Your task to perform on an android device: manage bookmarks in the chrome app Image 0: 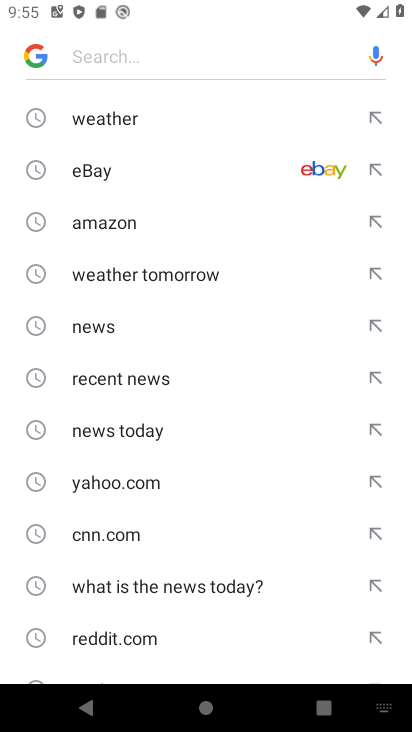
Step 0: press home button
Your task to perform on an android device: manage bookmarks in the chrome app Image 1: 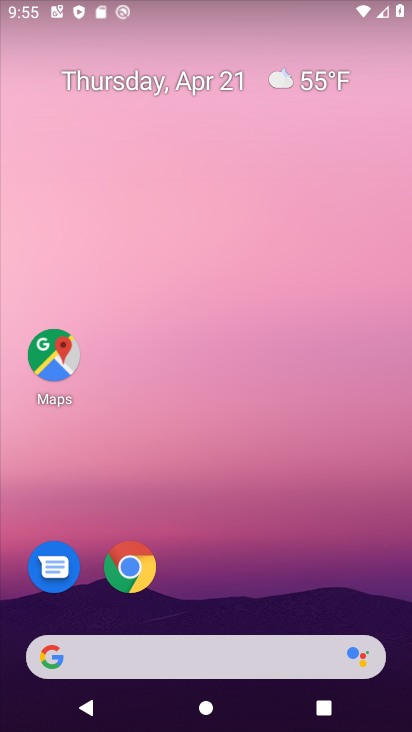
Step 1: click (133, 567)
Your task to perform on an android device: manage bookmarks in the chrome app Image 2: 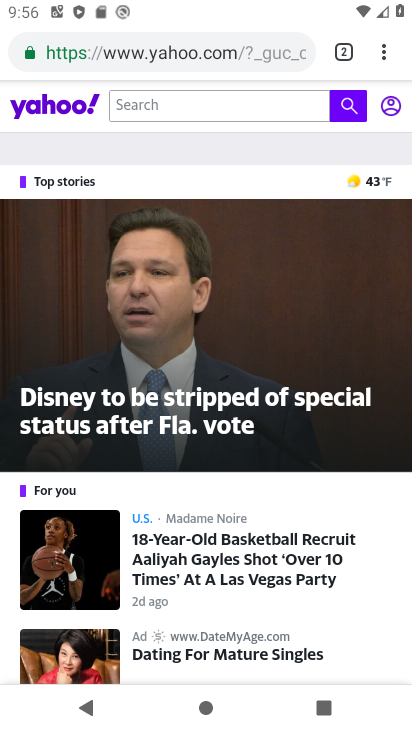
Step 2: click (383, 61)
Your task to perform on an android device: manage bookmarks in the chrome app Image 3: 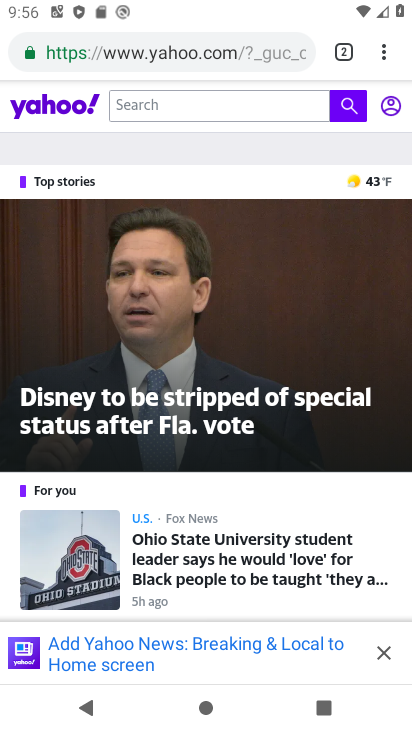
Step 3: click (383, 61)
Your task to perform on an android device: manage bookmarks in the chrome app Image 4: 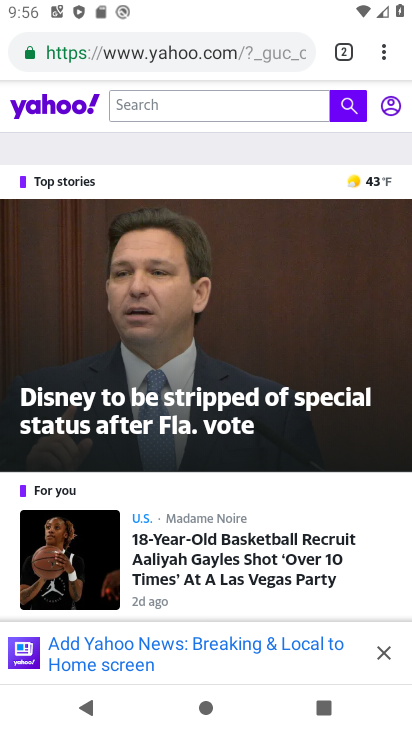
Step 4: click (381, 51)
Your task to perform on an android device: manage bookmarks in the chrome app Image 5: 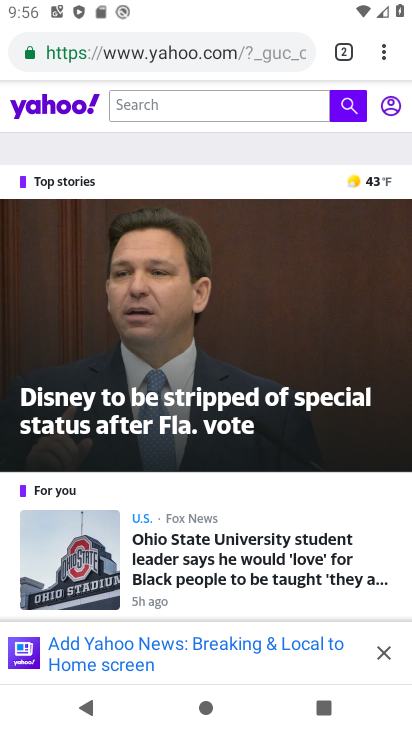
Step 5: click (381, 51)
Your task to perform on an android device: manage bookmarks in the chrome app Image 6: 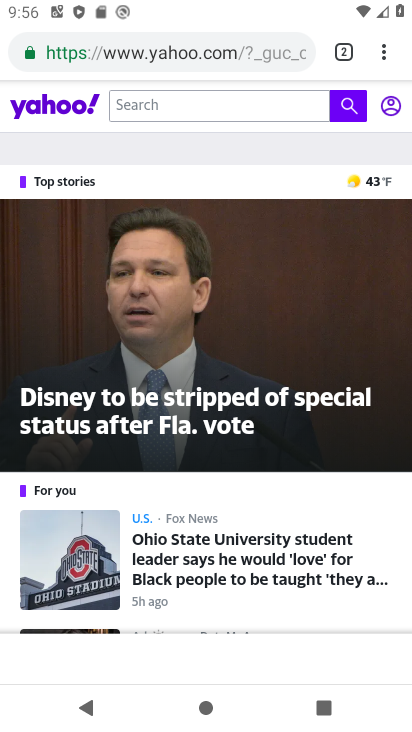
Step 6: click (381, 51)
Your task to perform on an android device: manage bookmarks in the chrome app Image 7: 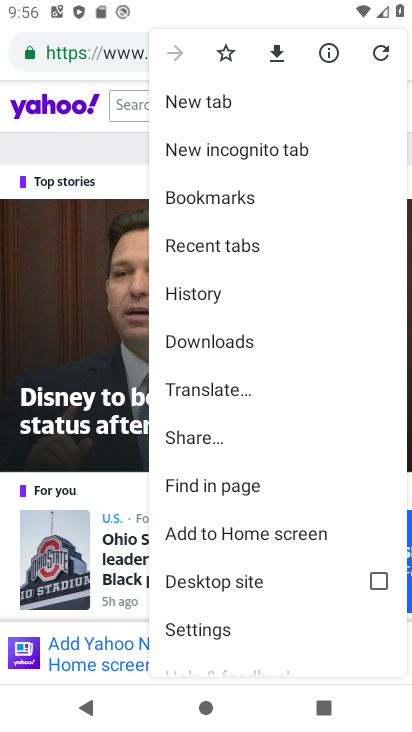
Step 7: click (204, 203)
Your task to perform on an android device: manage bookmarks in the chrome app Image 8: 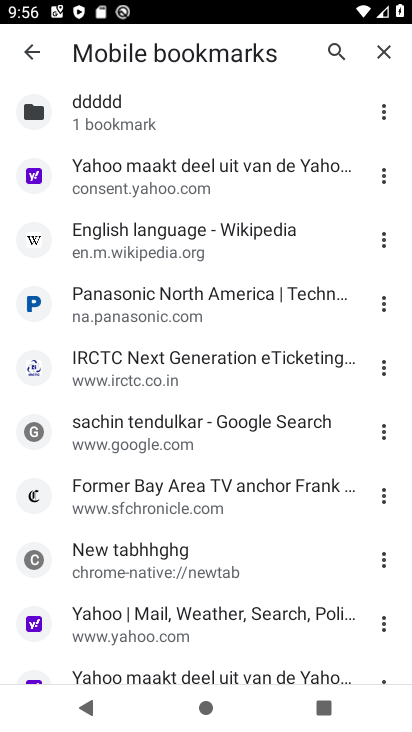
Step 8: click (96, 111)
Your task to perform on an android device: manage bookmarks in the chrome app Image 9: 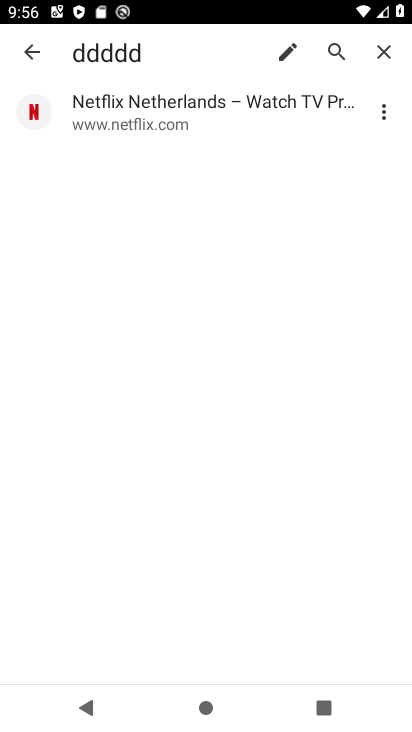
Step 9: click (96, 111)
Your task to perform on an android device: manage bookmarks in the chrome app Image 10: 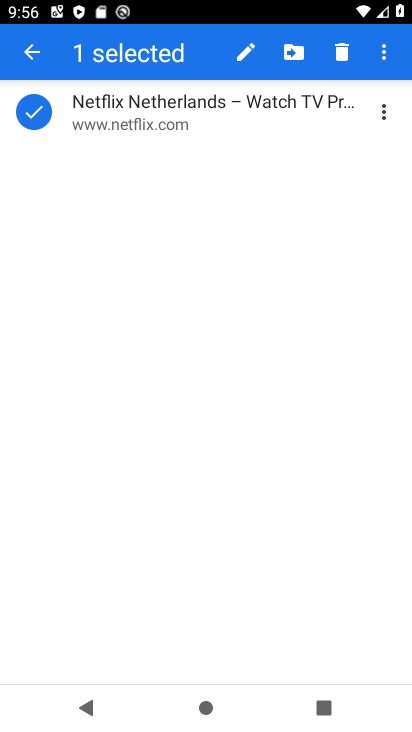
Step 10: press back button
Your task to perform on an android device: manage bookmarks in the chrome app Image 11: 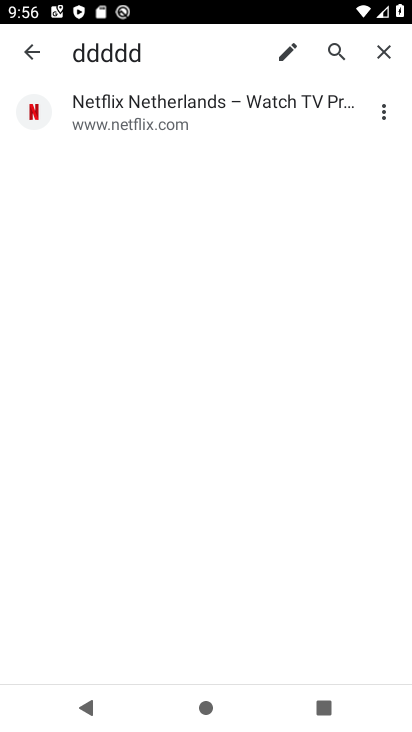
Step 11: press back button
Your task to perform on an android device: manage bookmarks in the chrome app Image 12: 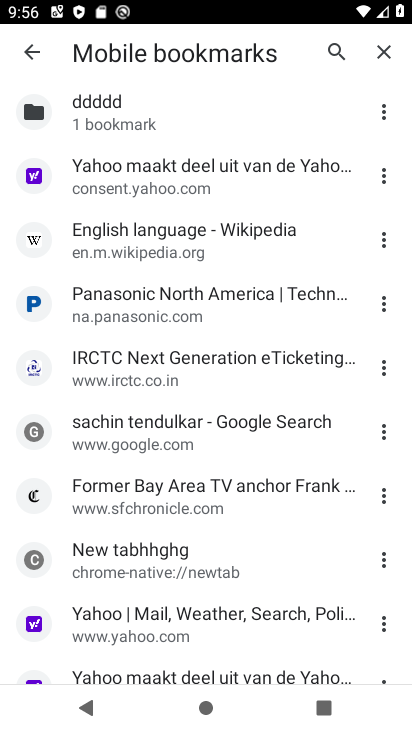
Step 12: click (133, 180)
Your task to perform on an android device: manage bookmarks in the chrome app Image 13: 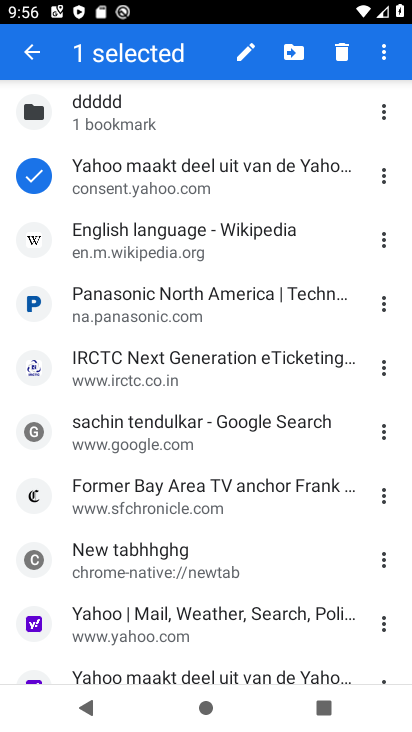
Step 13: click (291, 50)
Your task to perform on an android device: manage bookmarks in the chrome app Image 14: 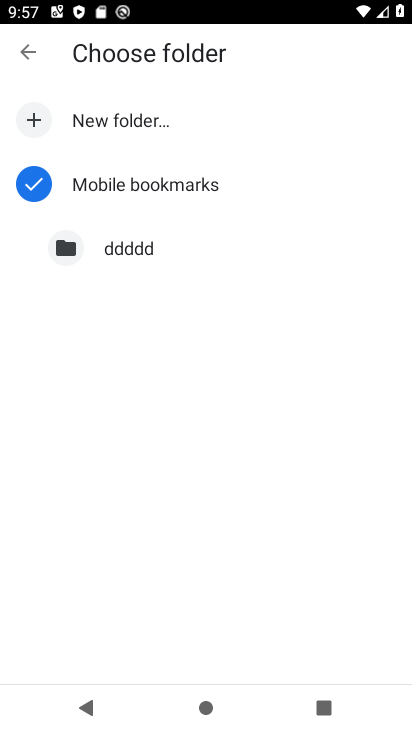
Step 14: click (35, 116)
Your task to perform on an android device: manage bookmarks in the chrome app Image 15: 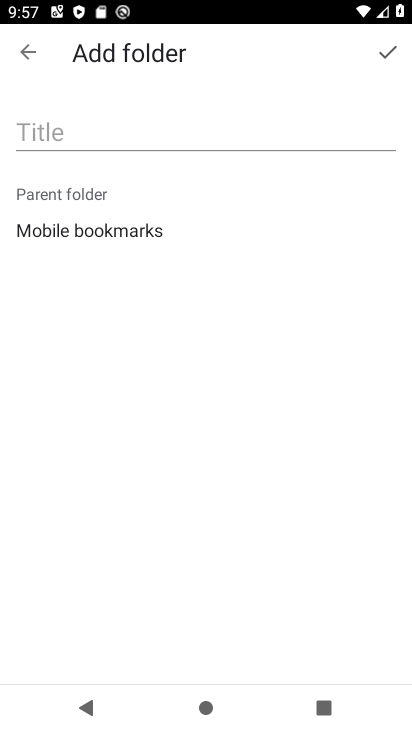
Step 15: click (74, 140)
Your task to perform on an android device: manage bookmarks in the chrome app Image 16: 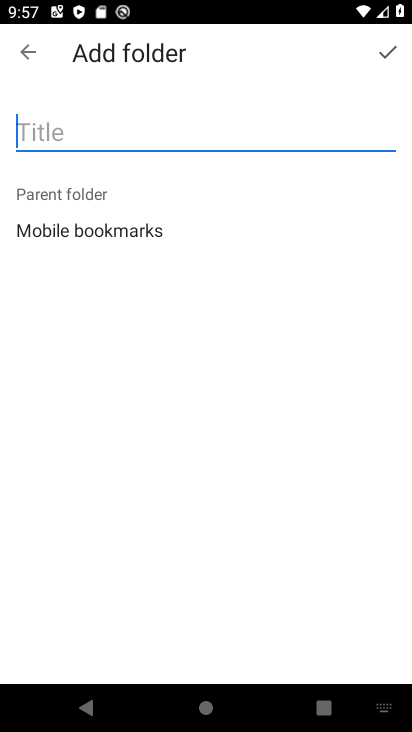
Step 16: type "fttr"
Your task to perform on an android device: manage bookmarks in the chrome app Image 17: 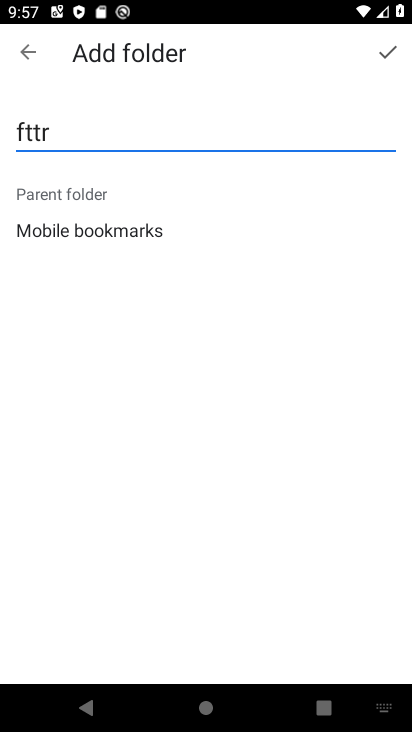
Step 17: click (380, 48)
Your task to perform on an android device: manage bookmarks in the chrome app Image 18: 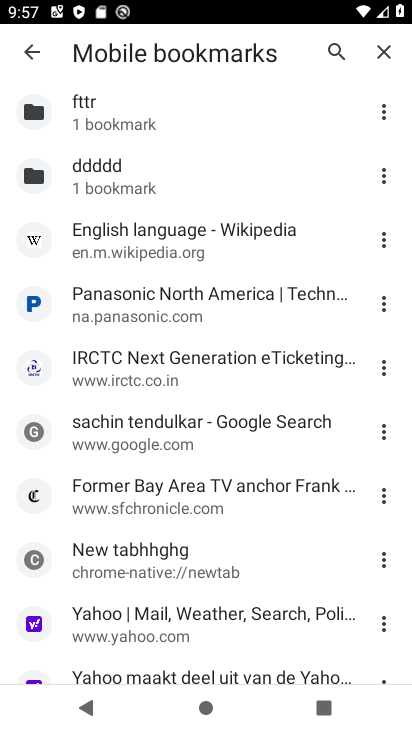
Step 18: task complete